Your task to perform on an android device: Open Reddit.com Image 0: 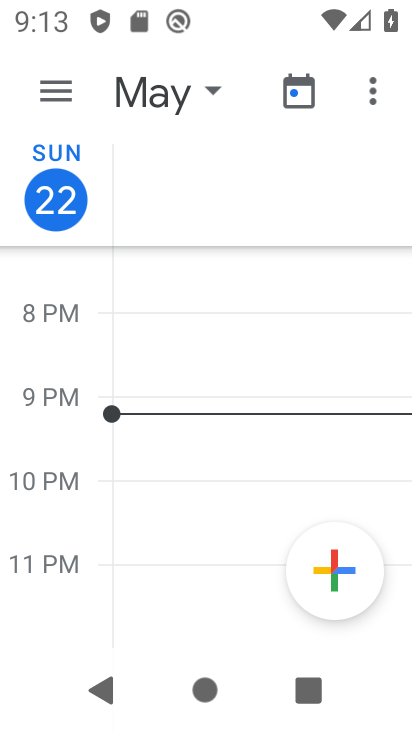
Step 0: press home button
Your task to perform on an android device: Open Reddit.com Image 1: 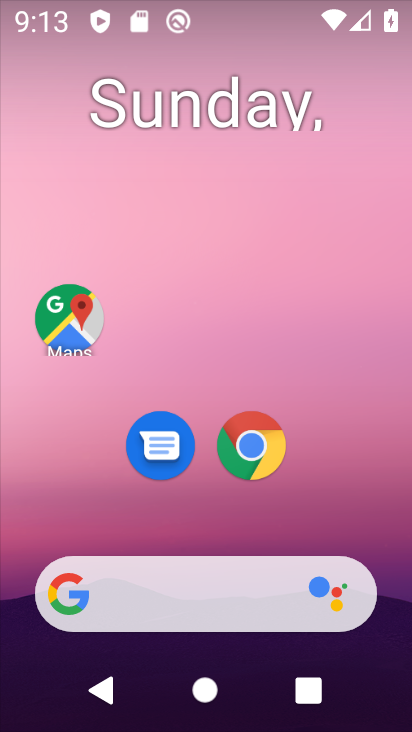
Step 1: drag from (197, 502) to (231, 148)
Your task to perform on an android device: Open Reddit.com Image 2: 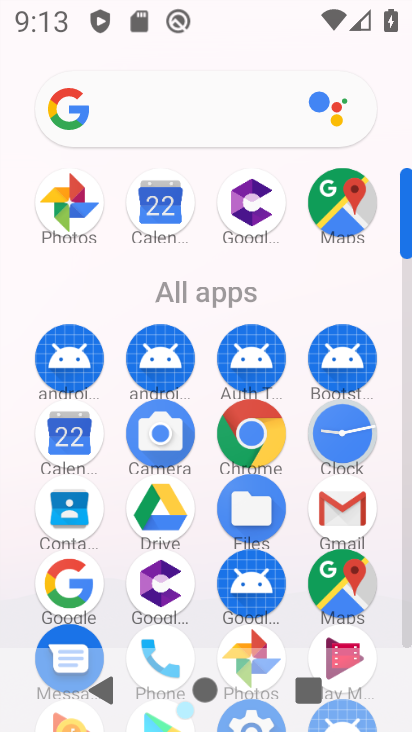
Step 2: click (250, 435)
Your task to perform on an android device: Open Reddit.com Image 3: 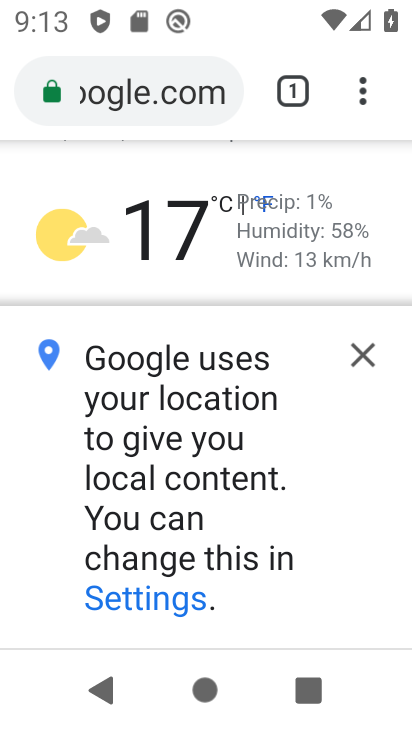
Step 3: click (147, 94)
Your task to perform on an android device: Open Reddit.com Image 4: 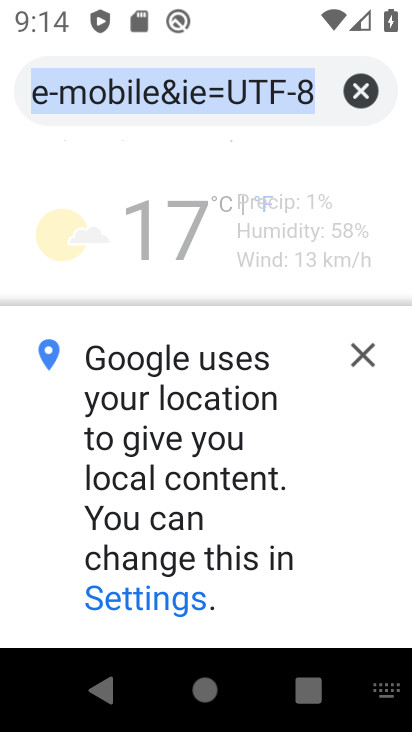
Step 4: type "Reddit.com"
Your task to perform on an android device: Open Reddit.com Image 5: 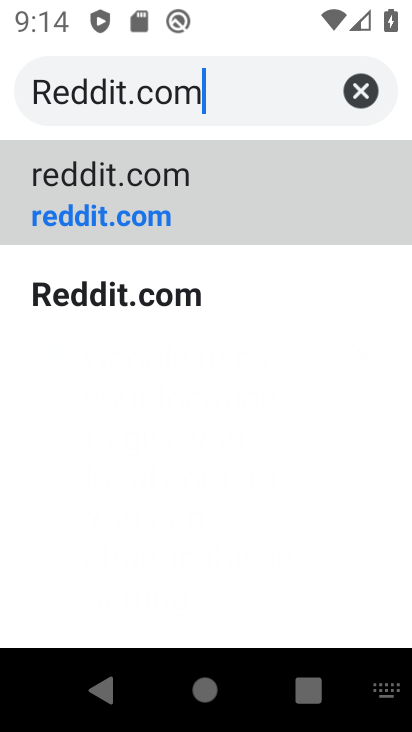
Step 5: click (198, 193)
Your task to perform on an android device: Open Reddit.com Image 6: 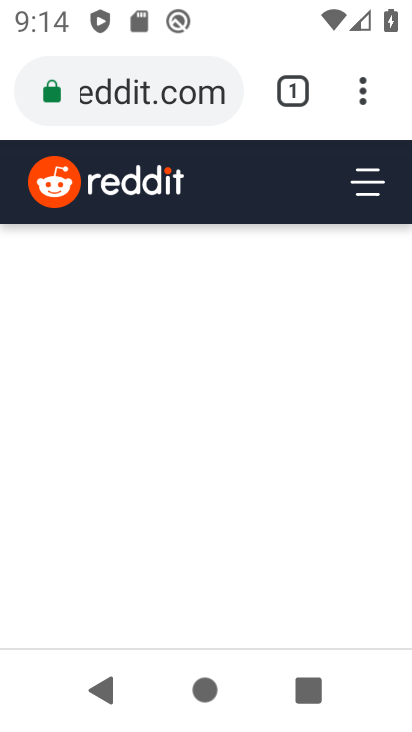
Step 6: task complete